Your task to perform on an android device: see sites visited before in the chrome app Image 0: 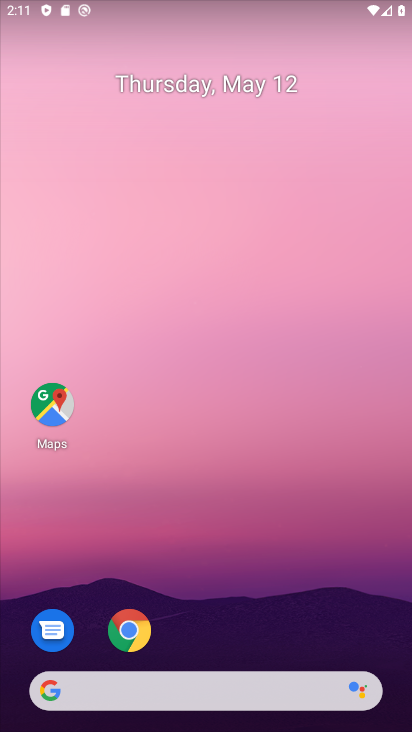
Step 0: click (129, 630)
Your task to perform on an android device: see sites visited before in the chrome app Image 1: 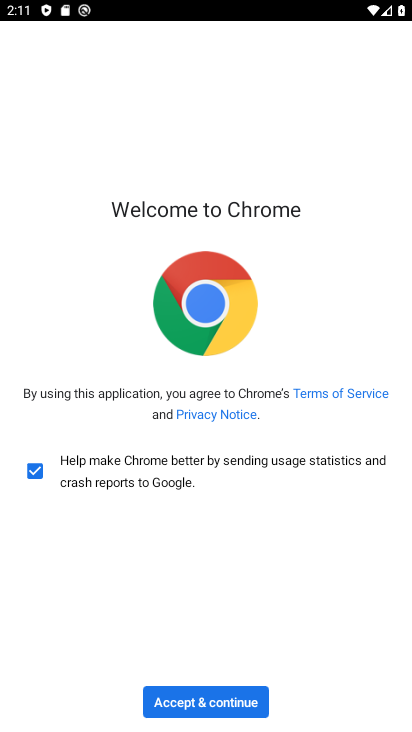
Step 1: click (217, 697)
Your task to perform on an android device: see sites visited before in the chrome app Image 2: 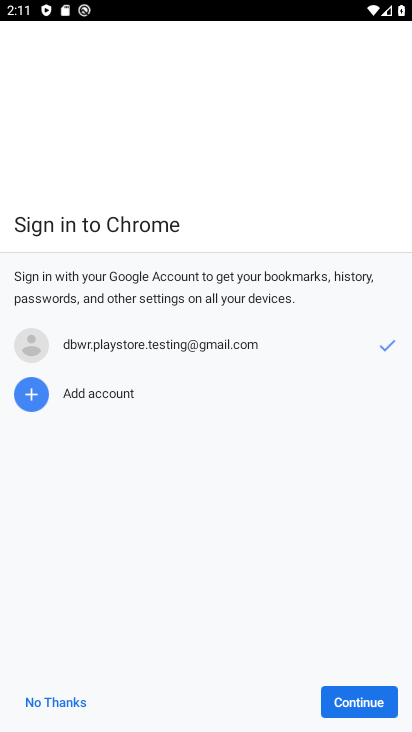
Step 2: click (375, 705)
Your task to perform on an android device: see sites visited before in the chrome app Image 3: 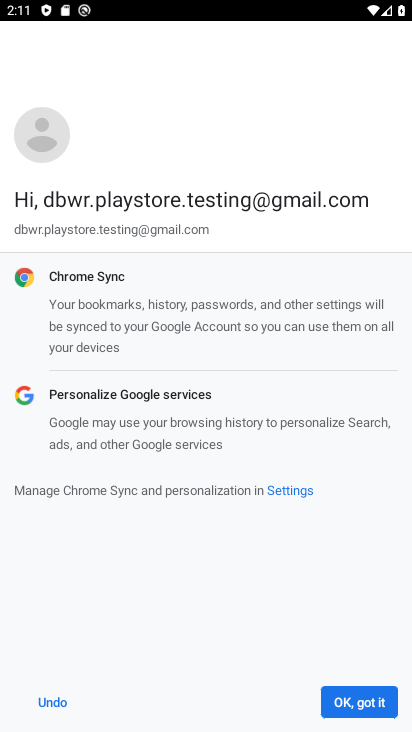
Step 3: click (375, 705)
Your task to perform on an android device: see sites visited before in the chrome app Image 4: 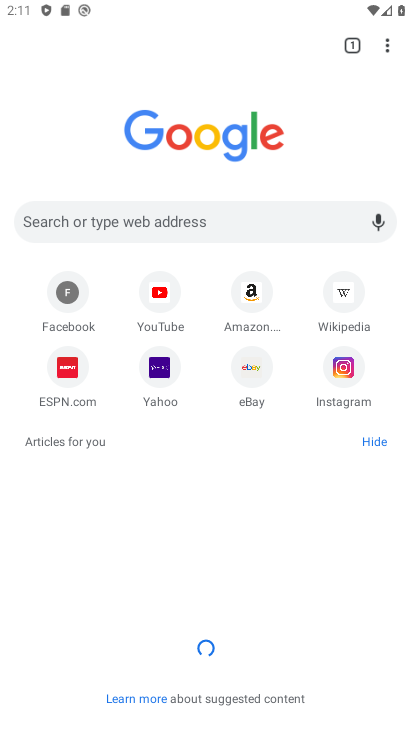
Step 4: click (388, 46)
Your task to perform on an android device: see sites visited before in the chrome app Image 5: 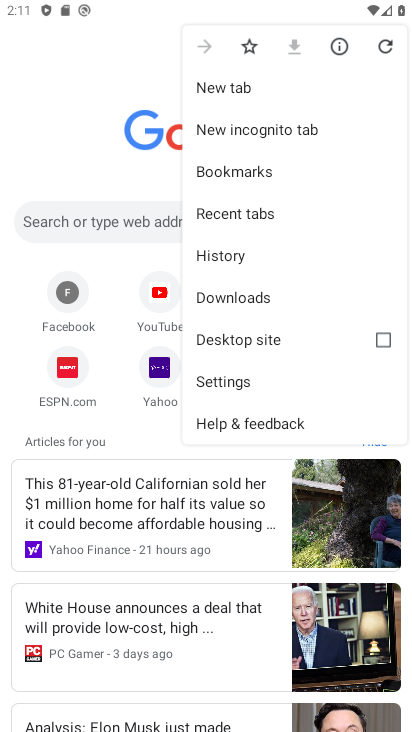
Step 5: click (236, 259)
Your task to perform on an android device: see sites visited before in the chrome app Image 6: 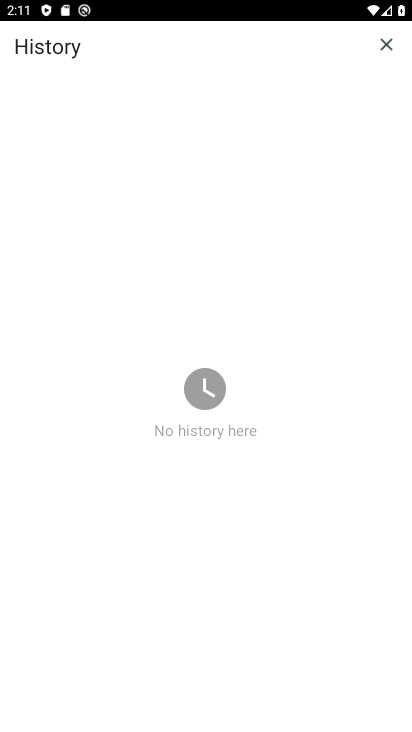
Step 6: task complete